Your task to perform on an android device: Go to display settings Image 0: 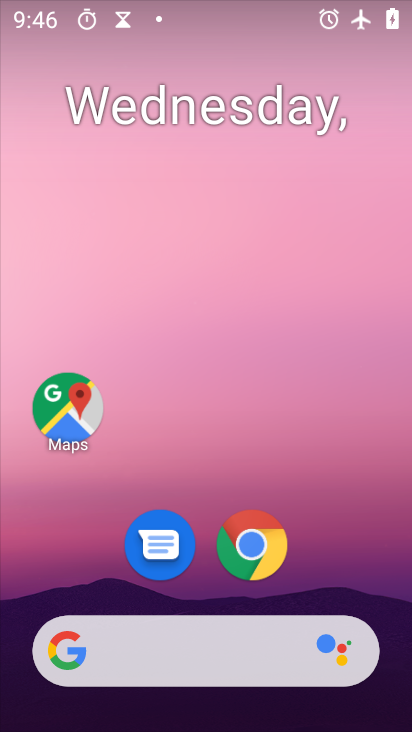
Step 0: press home button
Your task to perform on an android device: Go to display settings Image 1: 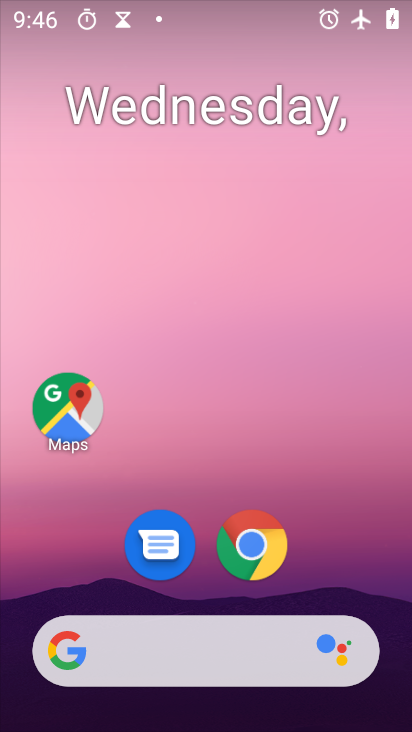
Step 1: drag from (202, 649) to (300, 272)
Your task to perform on an android device: Go to display settings Image 2: 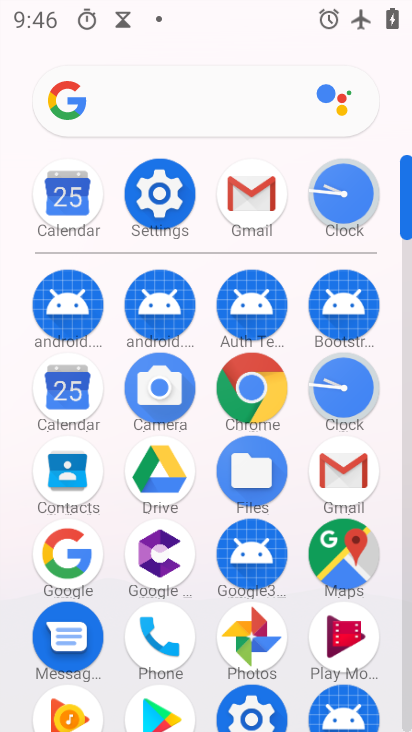
Step 2: click (166, 204)
Your task to perform on an android device: Go to display settings Image 3: 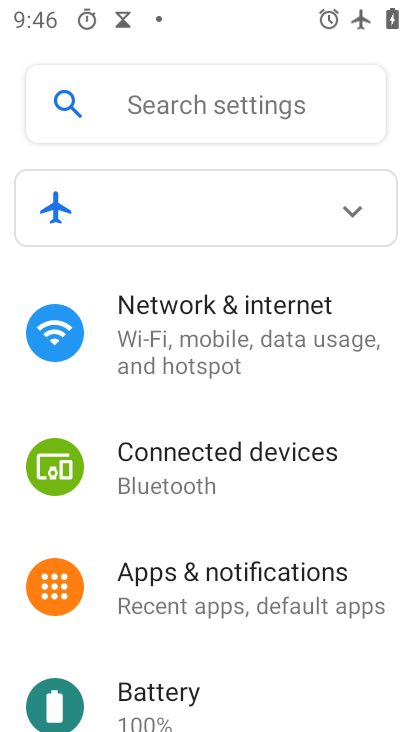
Step 3: drag from (244, 590) to (288, 210)
Your task to perform on an android device: Go to display settings Image 4: 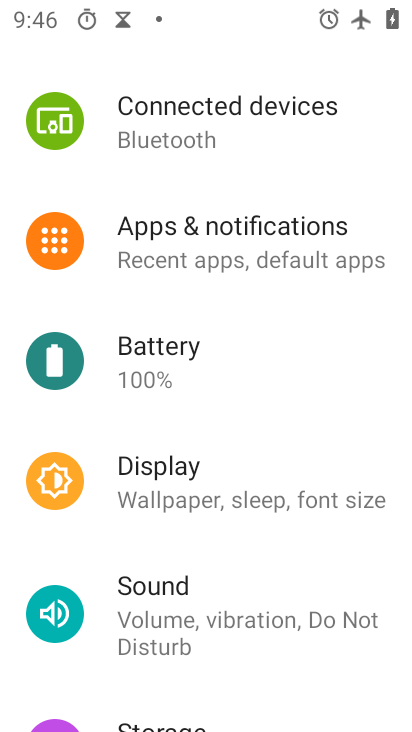
Step 4: click (196, 483)
Your task to perform on an android device: Go to display settings Image 5: 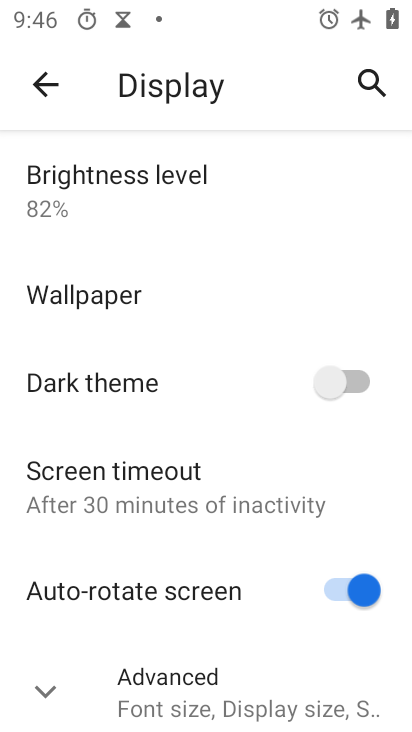
Step 5: task complete